Your task to perform on an android device: Open settings on Google Maps Image 0: 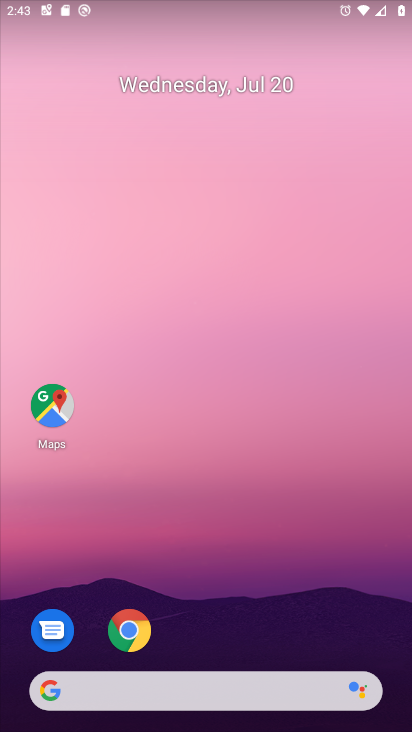
Step 0: press home button
Your task to perform on an android device: Open settings on Google Maps Image 1: 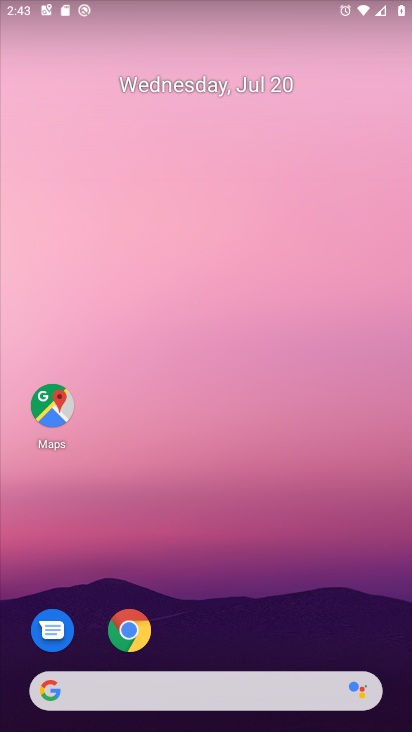
Step 1: drag from (196, 625) to (193, 234)
Your task to perform on an android device: Open settings on Google Maps Image 2: 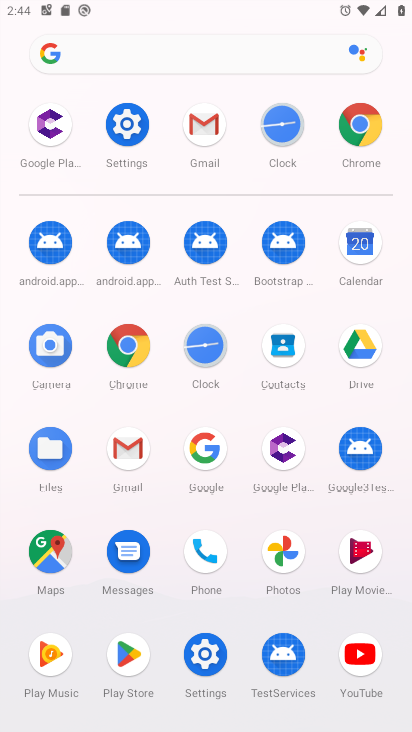
Step 2: click (53, 568)
Your task to perform on an android device: Open settings on Google Maps Image 3: 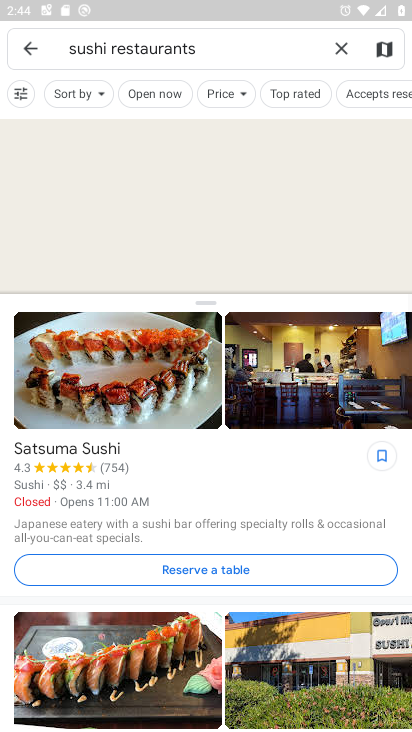
Step 3: click (35, 47)
Your task to perform on an android device: Open settings on Google Maps Image 4: 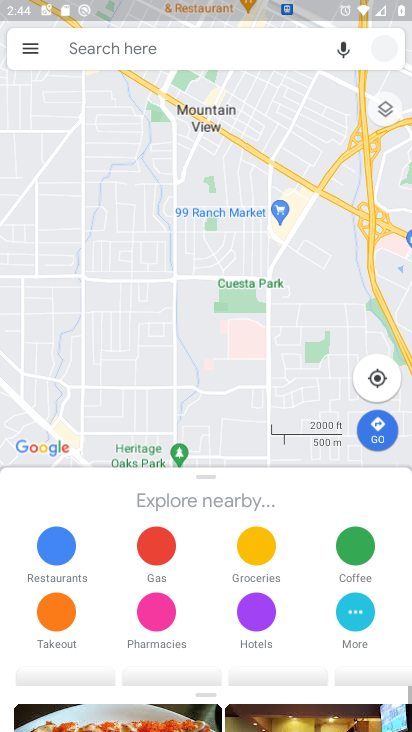
Step 4: click (33, 55)
Your task to perform on an android device: Open settings on Google Maps Image 5: 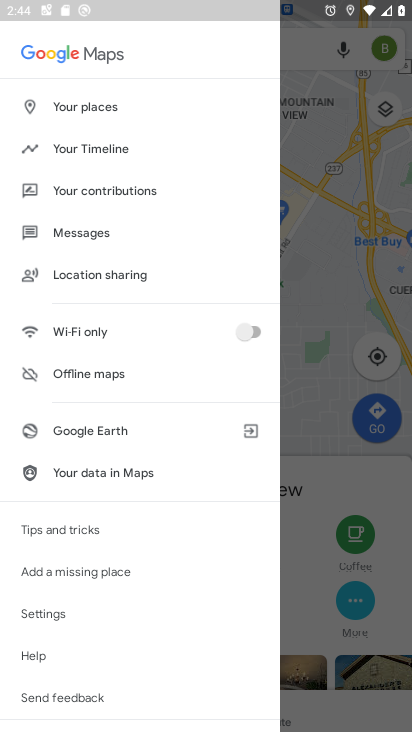
Step 5: click (56, 618)
Your task to perform on an android device: Open settings on Google Maps Image 6: 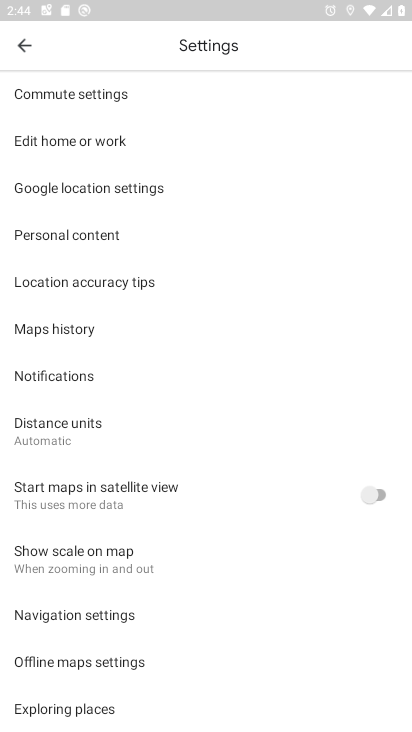
Step 6: task complete